Your task to perform on an android device: check out phone information Image 0: 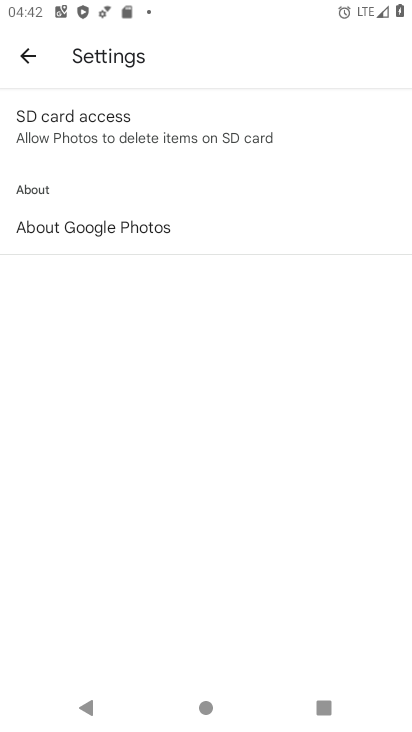
Step 0: press home button
Your task to perform on an android device: check out phone information Image 1: 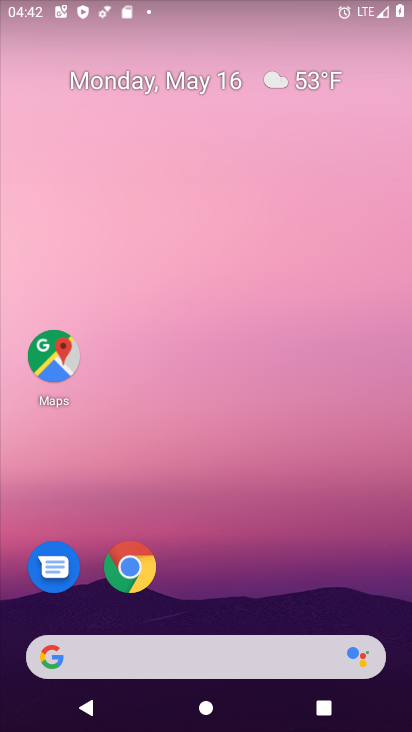
Step 1: drag from (272, 670) to (283, 80)
Your task to perform on an android device: check out phone information Image 2: 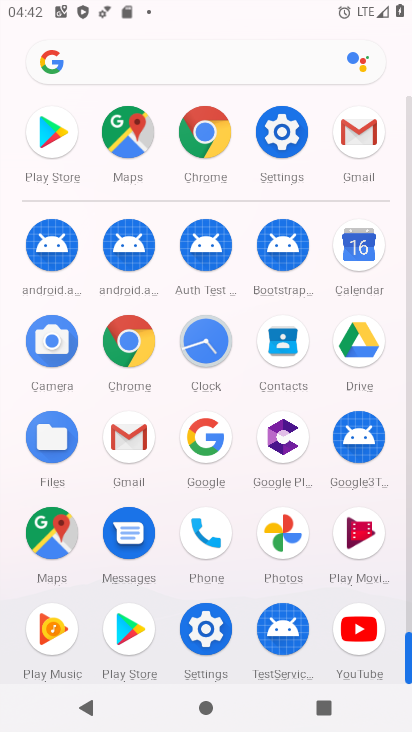
Step 2: click (207, 651)
Your task to perform on an android device: check out phone information Image 3: 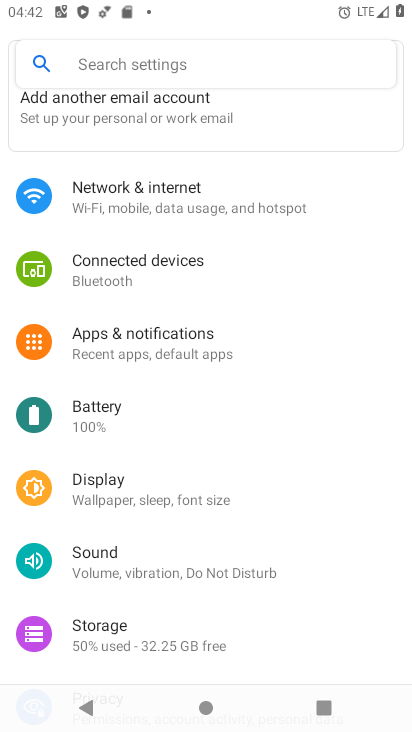
Step 3: drag from (335, 663) to (254, 47)
Your task to perform on an android device: check out phone information Image 4: 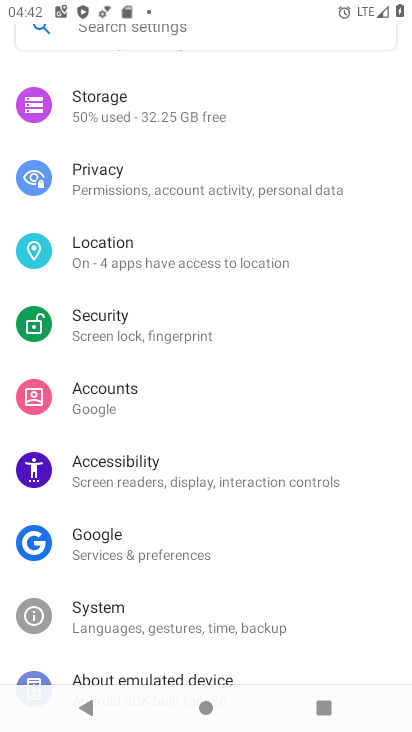
Step 4: drag from (121, 661) to (146, 132)
Your task to perform on an android device: check out phone information Image 5: 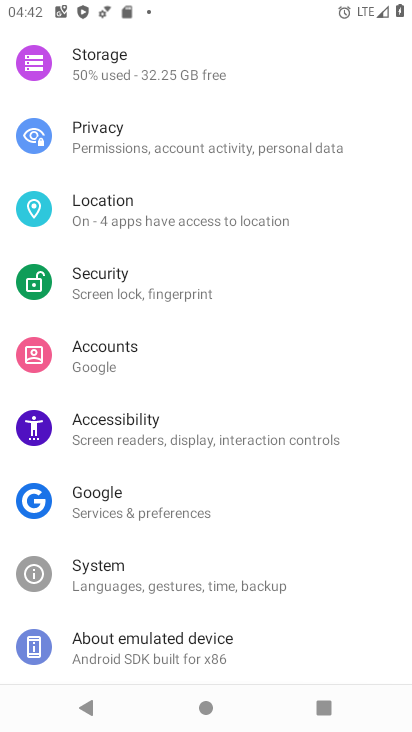
Step 5: click (212, 668)
Your task to perform on an android device: check out phone information Image 6: 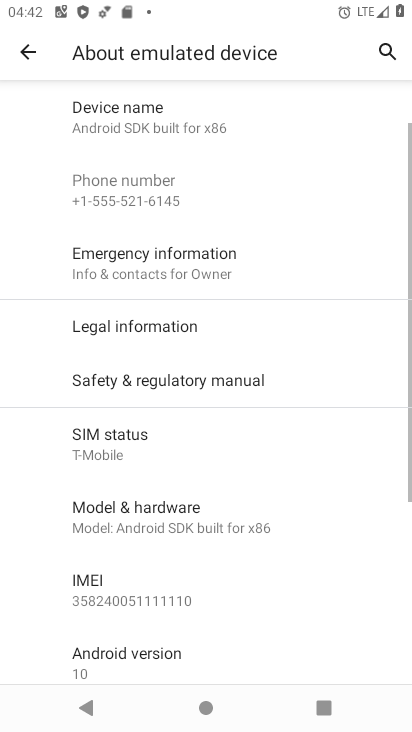
Step 6: task complete